Your task to perform on an android device: Open Amazon Image 0: 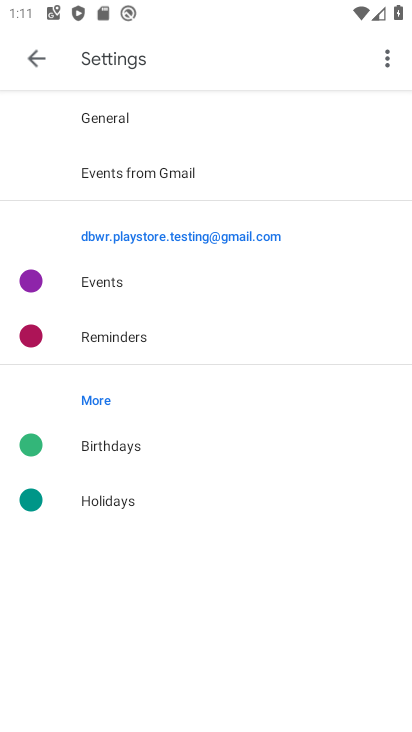
Step 0: press home button
Your task to perform on an android device: Open Amazon Image 1: 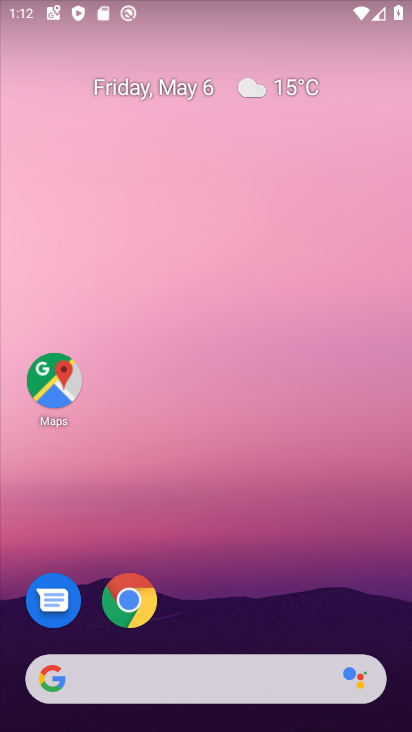
Step 1: drag from (327, 607) to (259, 47)
Your task to perform on an android device: Open Amazon Image 2: 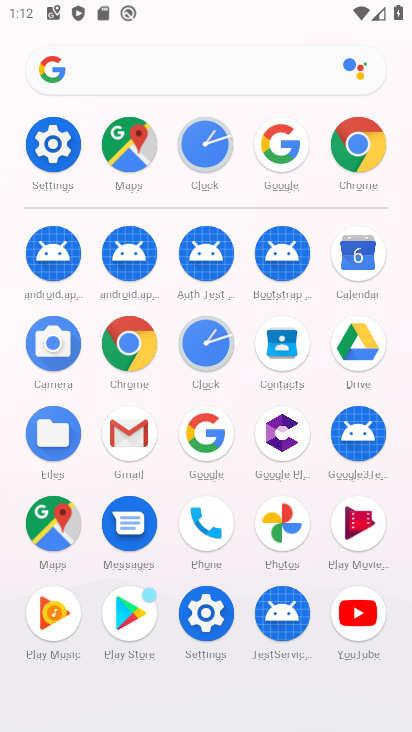
Step 2: click (140, 358)
Your task to perform on an android device: Open Amazon Image 3: 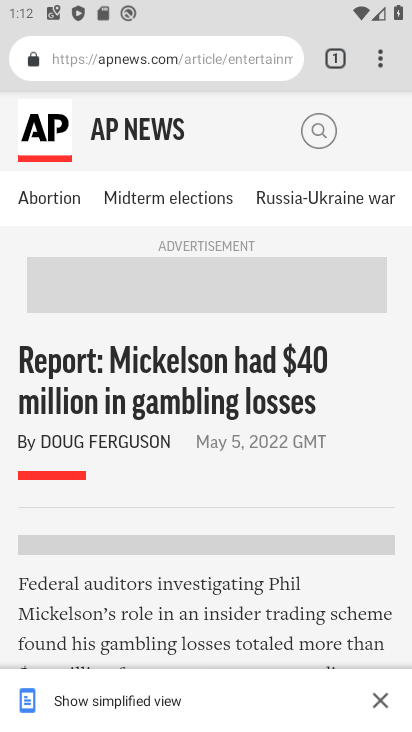
Step 3: press back button
Your task to perform on an android device: Open Amazon Image 4: 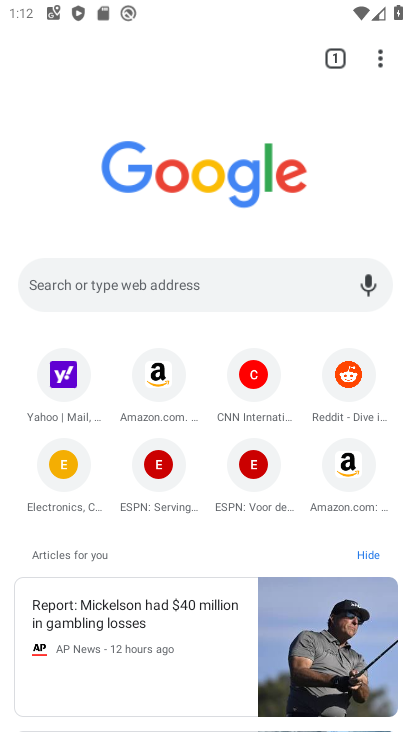
Step 4: click (346, 464)
Your task to perform on an android device: Open Amazon Image 5: 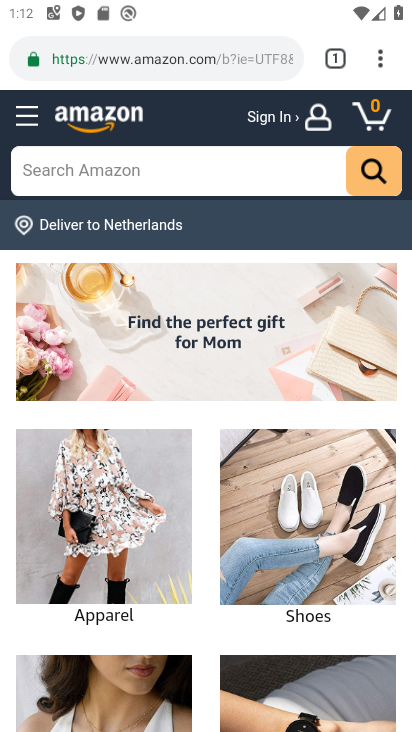
Step 5: task complete